Your task to perform on an android device: open app "LinkedIn" (install if not already installed) Image 0: 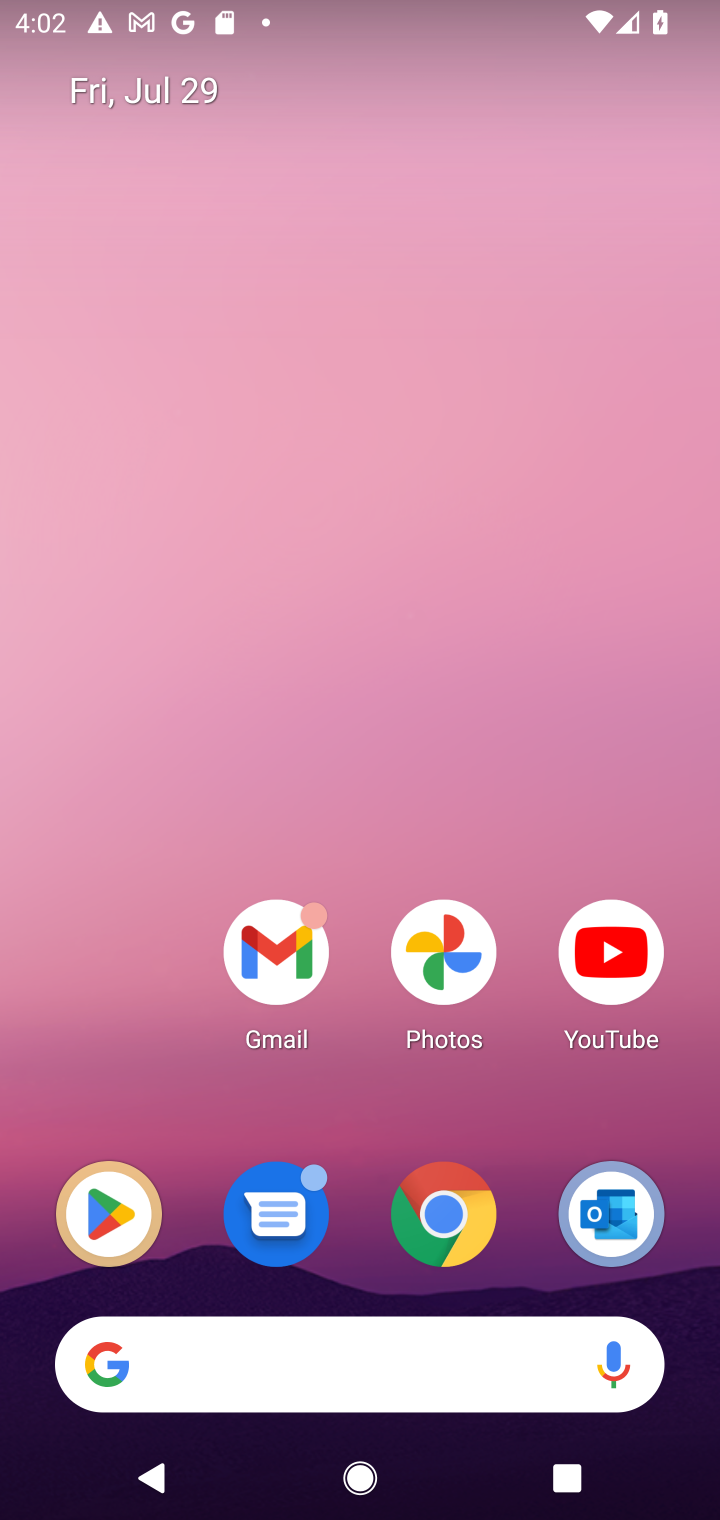
Step 0: click (107, 1185)
Your task to perform on an android device: open app "LinkedIn" (install if not already installed) Image 1: 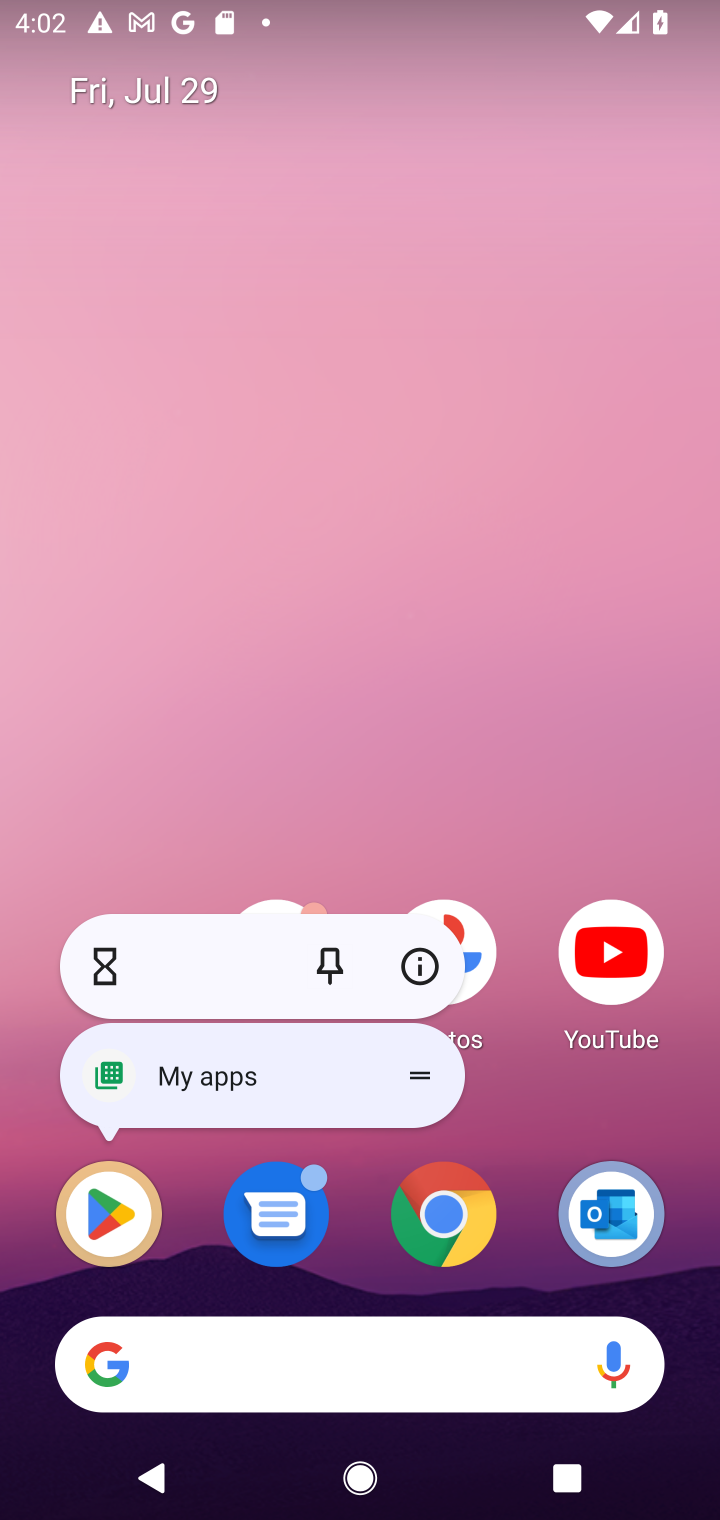
Step 1: click (105, 1203)
Your task to perform on an android device: open app "LinkedIn" (install if not already installed) Image 2: 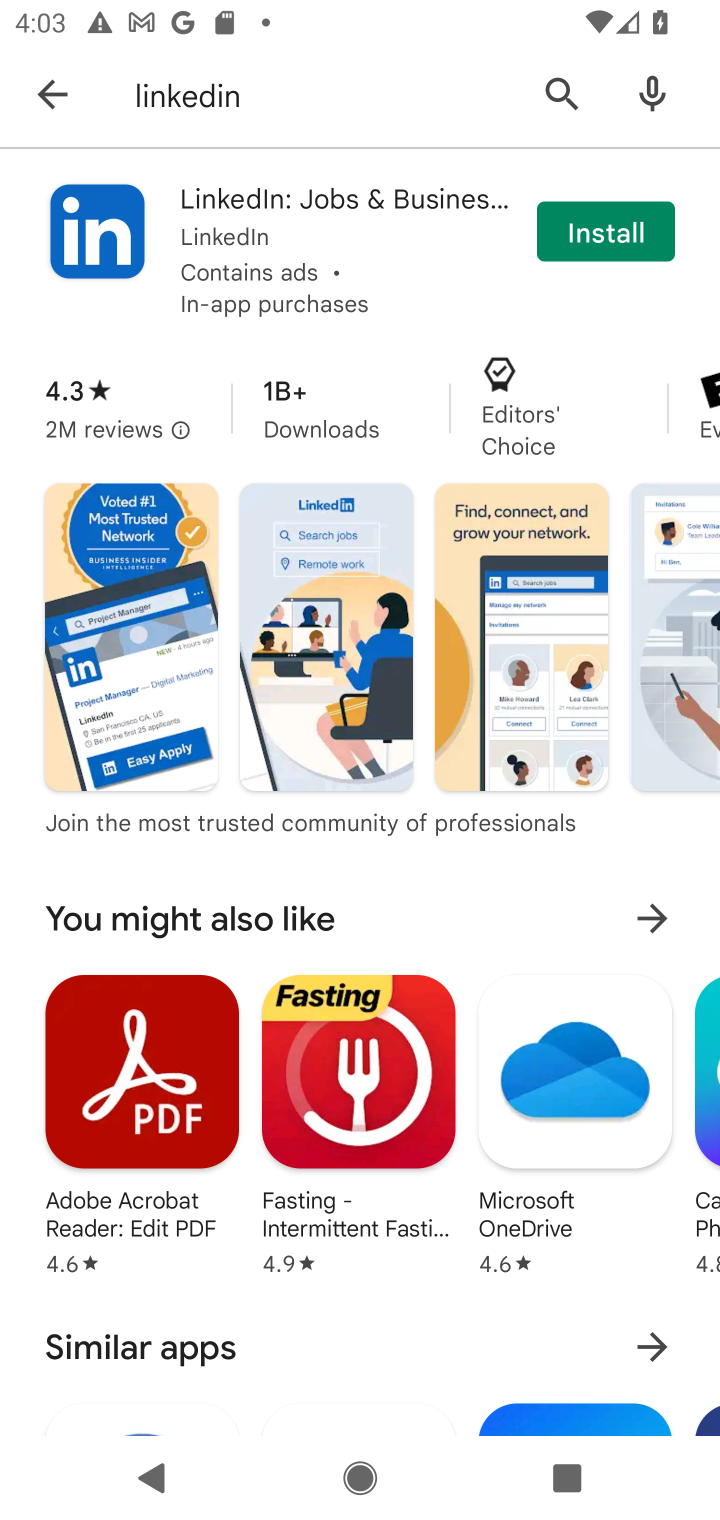
Step 2: click (612, 237)
Your task to perform on an android device: open app "LinkedIn" (install if not already installed) Image 3: 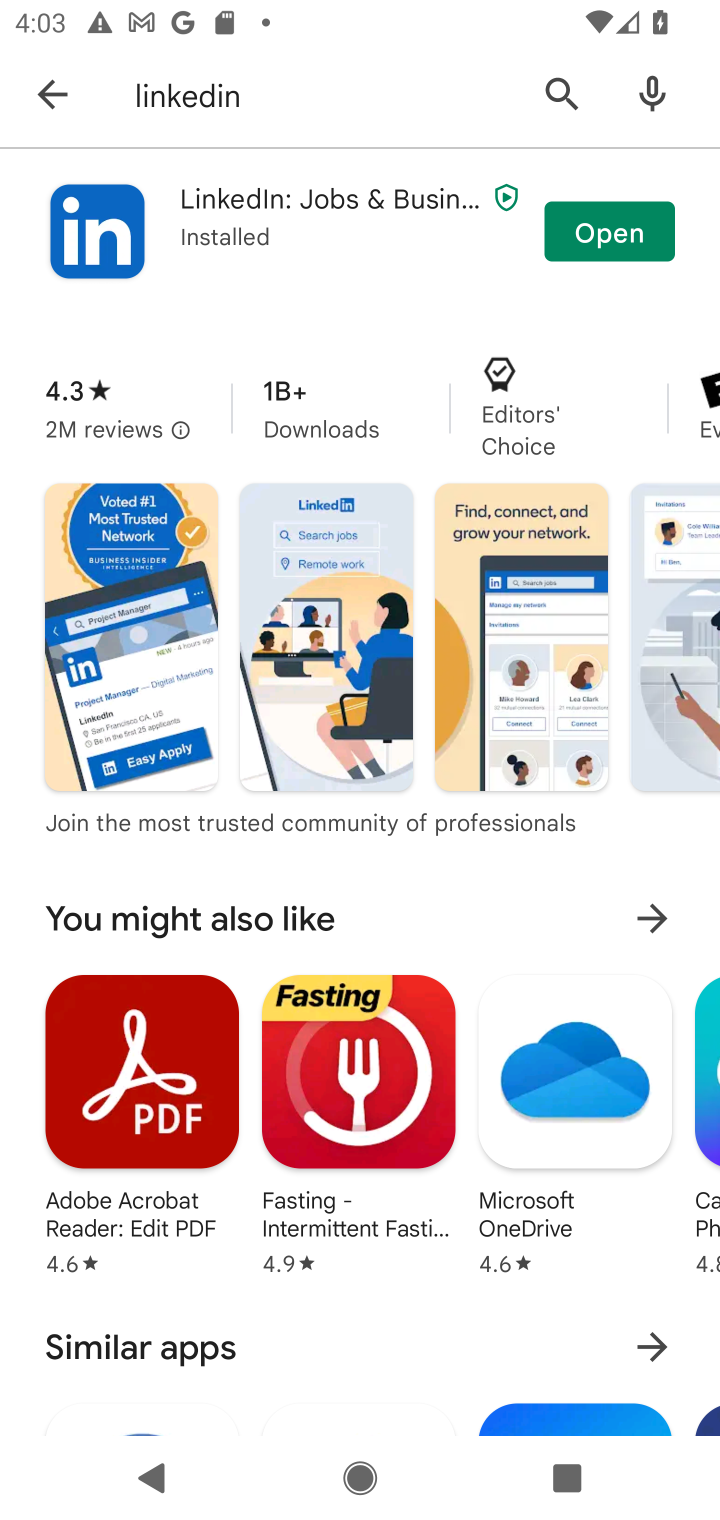
Step 3: click (621, 248)
Your task to perform on an android device: open app "LinkedIn" (install if not already installed) Image 4: 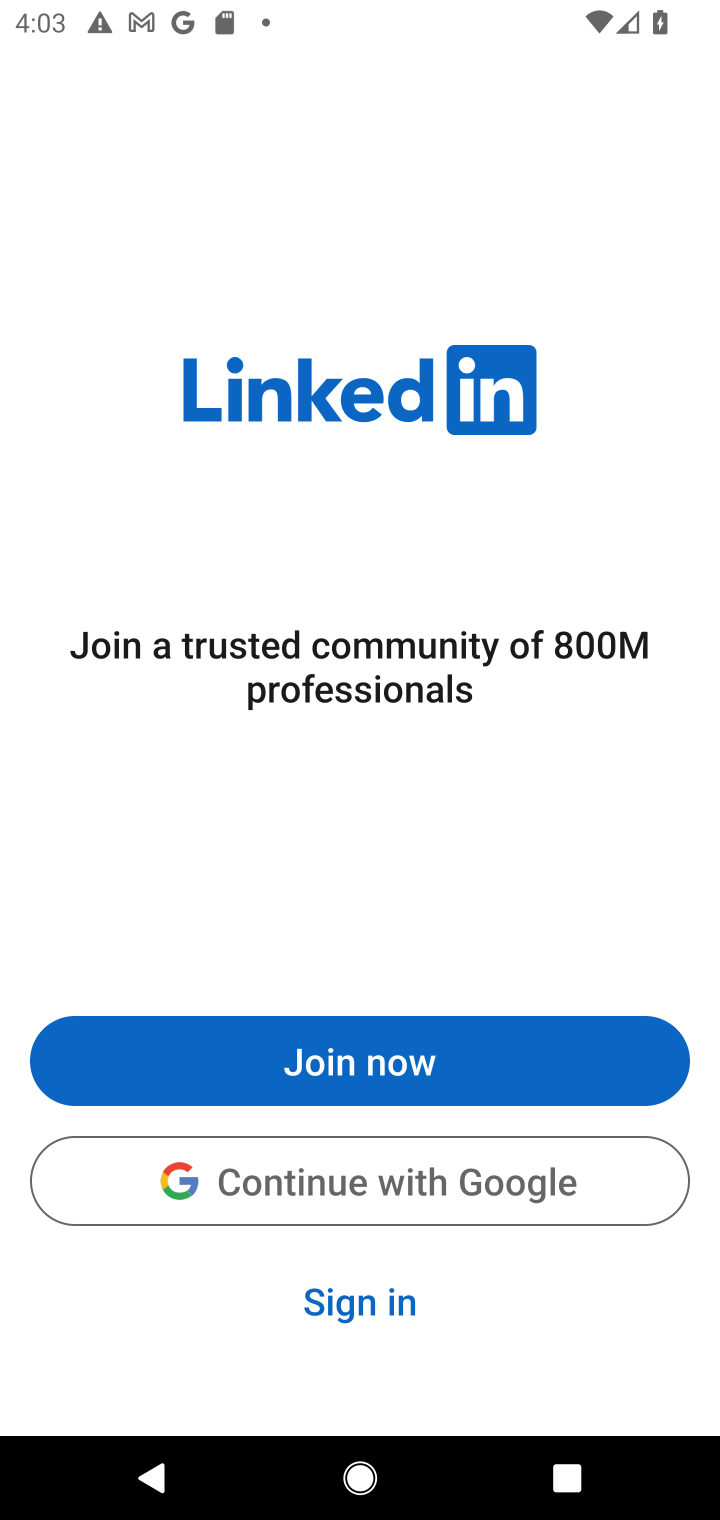
Step 4: click (392, 1192)
Your task to perform on an android device: open app "LinkedIn" (install if not already installed) Image 5: 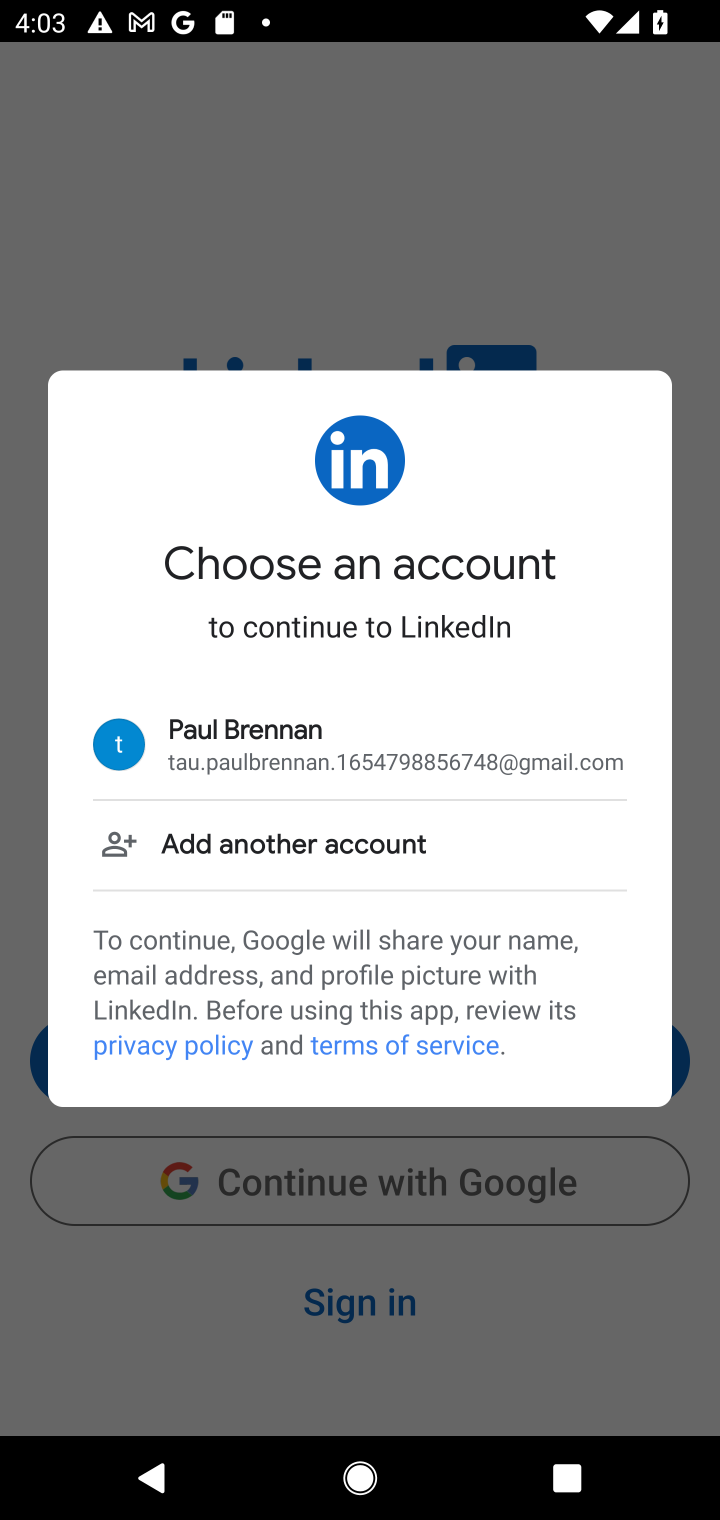
Step 5: click (384, 763)
Your task to perform on an android device: open app "LinkedIn" (install if not already installed) Image 6: 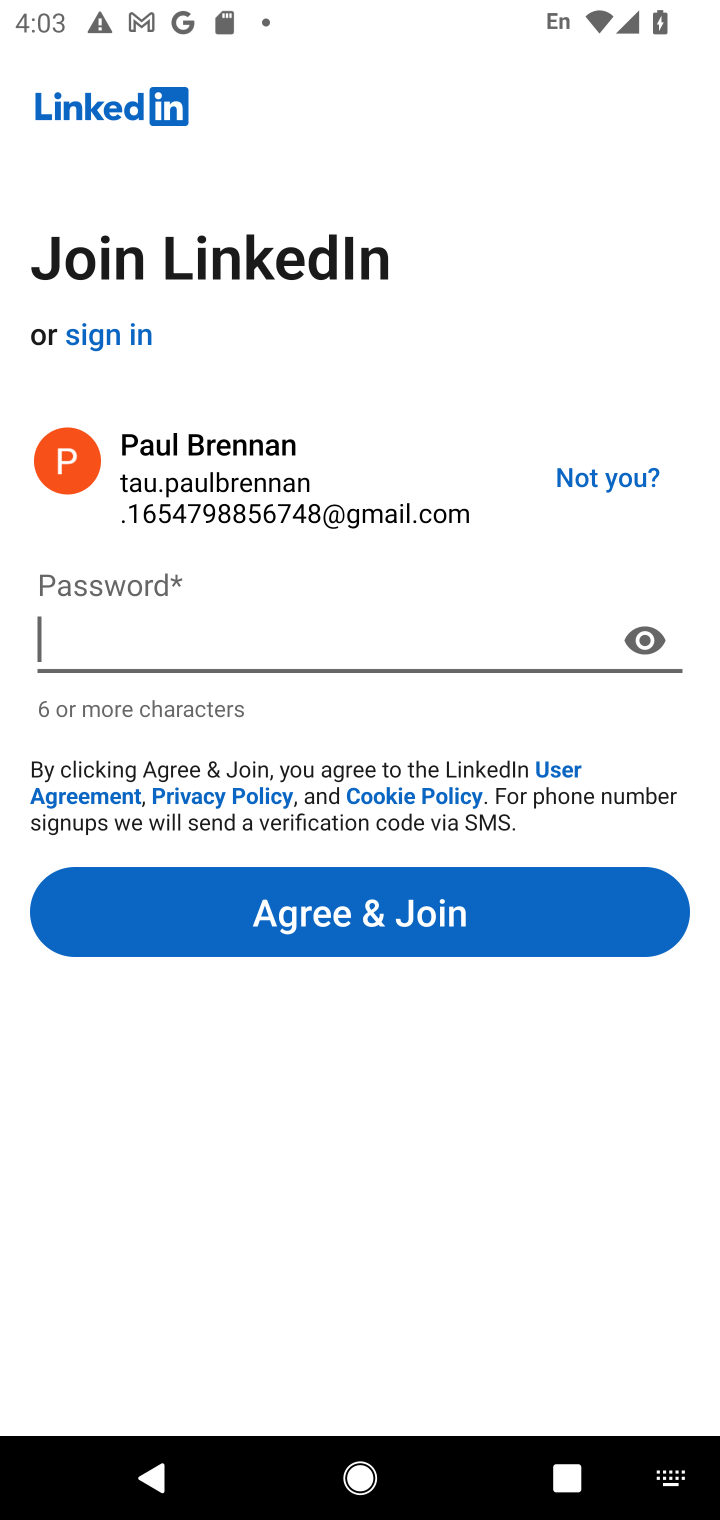
Step 6: task complete